Your task to perform on an android device: Open Google Maps and go to "Timeline" Image 0: 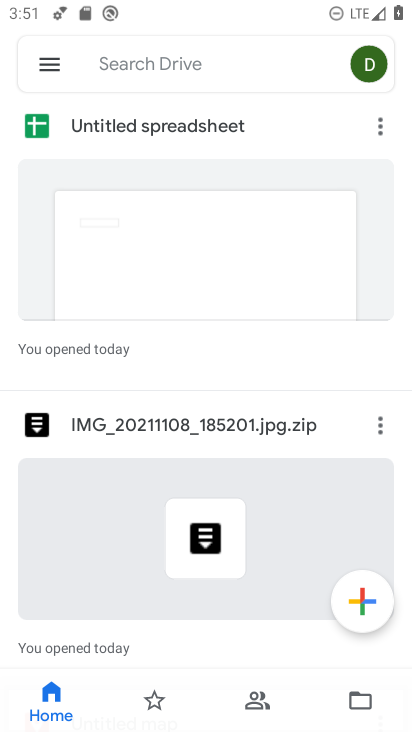
Step 0: press home button
Your task to perform on an android device: Open Google Maps and go to "Timeline" Image 1: 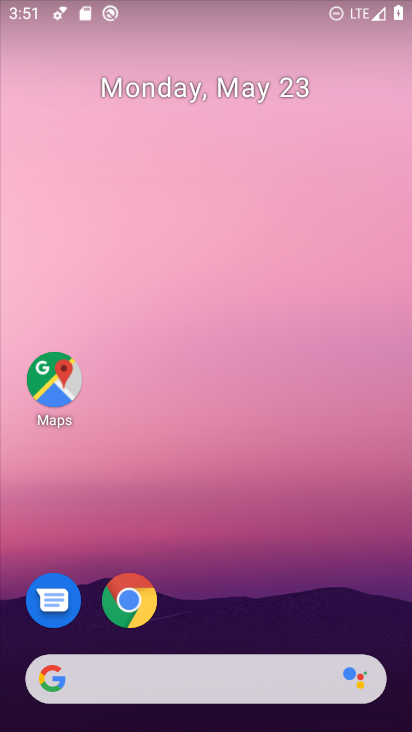
Step 1: click (56, 393)
Your task to perform on an android device: Open Google Maps and go to "Timeline" Image 2: 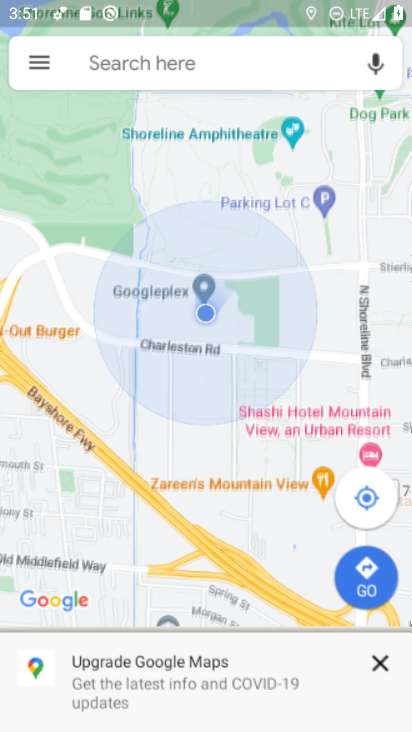
Step 2: click (38, 68)
Your task to perform on an android device: Open Google Maps and go to "Timeline" Image 3: 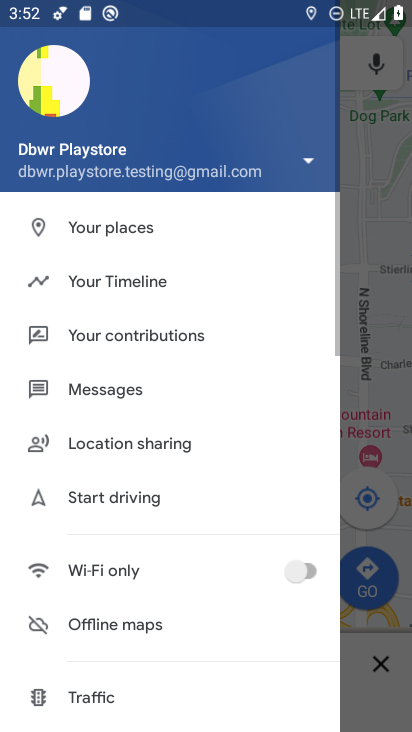
Step 3: click (41, 66)
Your task to perform on an android device: Open Google Maps and go to "Timeline" Image 4: 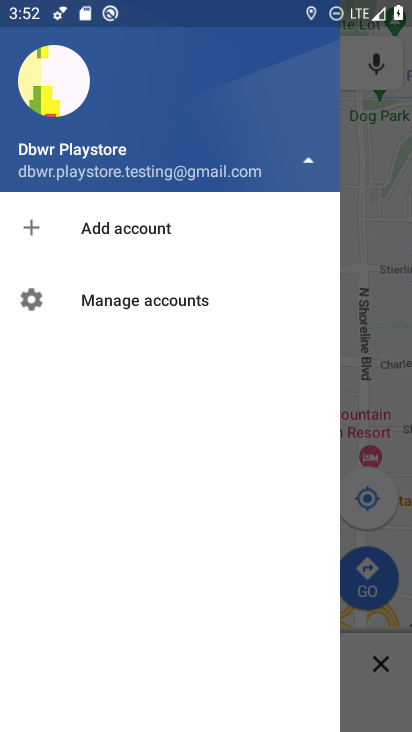
Step 4: press back button
Your task to perform on an android device: Open Google Maps and go to "Timeline" Image 5: 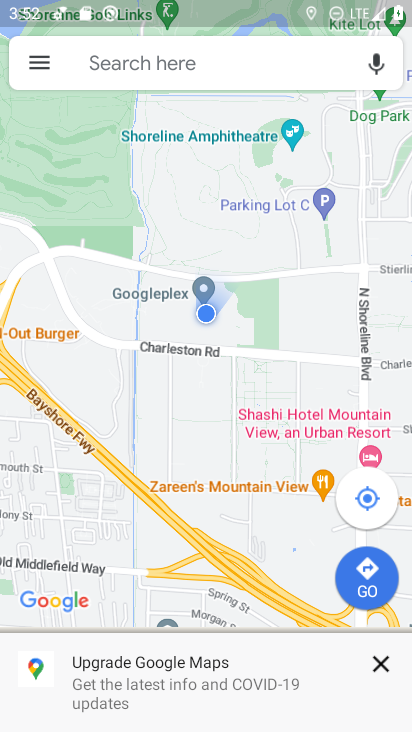
Step 5: click (43, 63)
Your task to perform on an android device: Open Google Maps and go to "Timeline" Image 6: 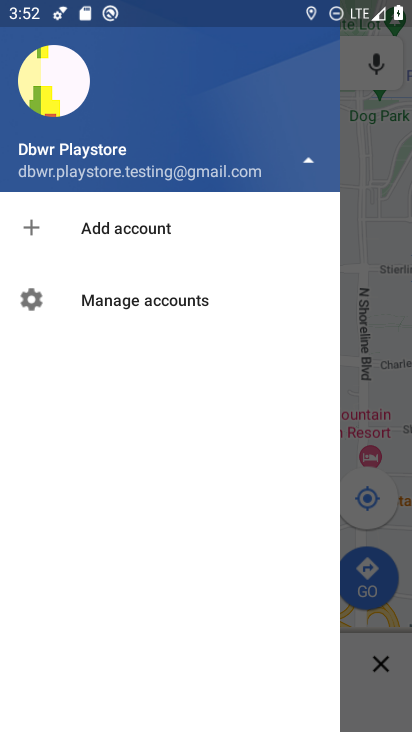
Step 6: click (306, 159)
Your task to perform on an android device: Open Google Maps and go to "Timeline" Image 7: 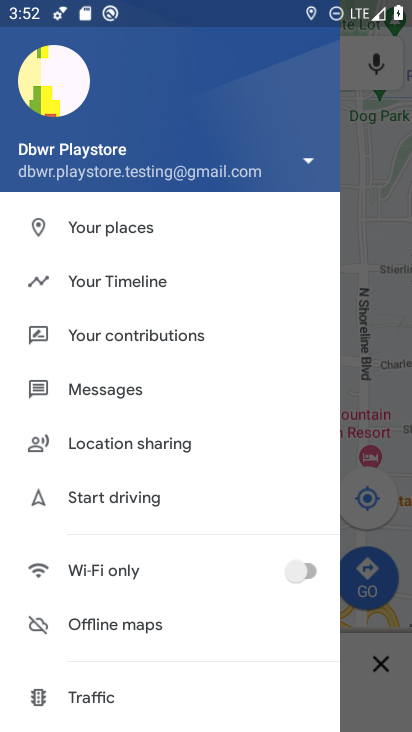
Step 7: click (79, 285)
Your task to perform on an android device: Open Google Maps and go to "Timeline" Image 8: 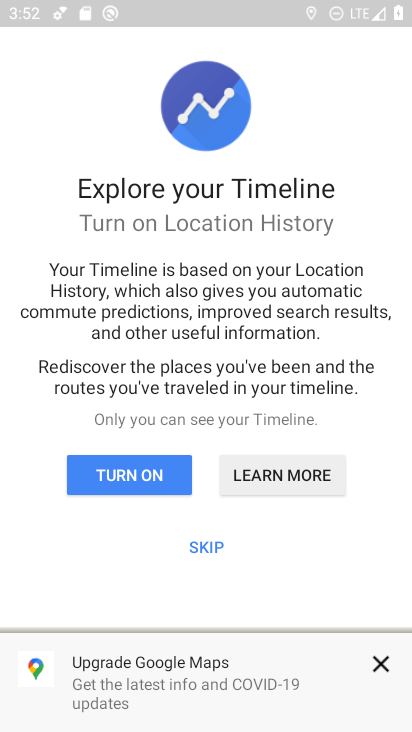
Step 8: click (219, 544)
Your task to perform on an android device: Open Google Maps and go to "Timeline" Image 9: 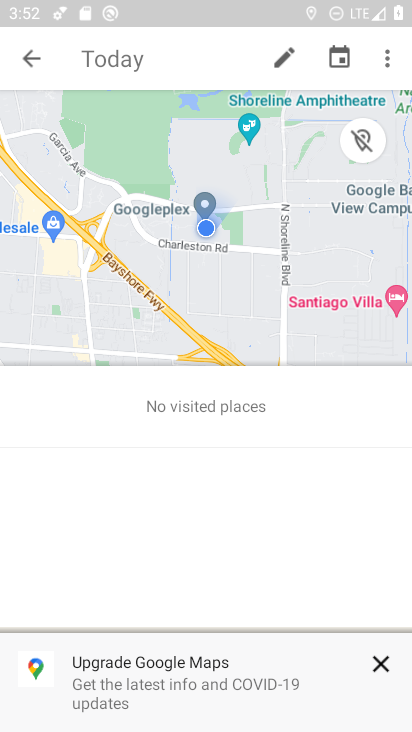
Step 9: task complete